Your task to perform on an android device: search for starred emails in the gmail app Image 0: 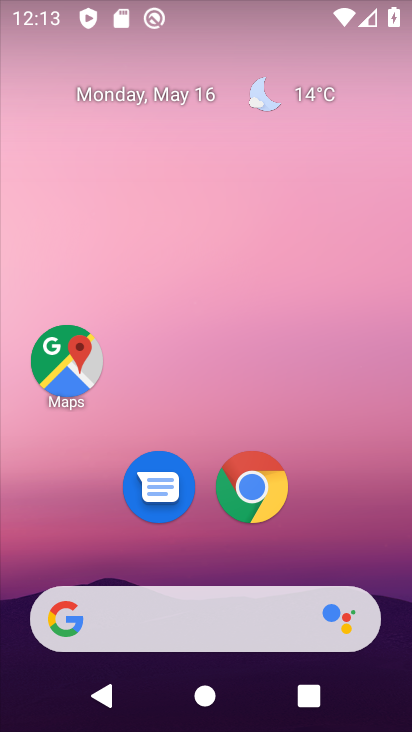
Step 0: press home button
Your task to perform on an android device: search for starred emails in the gmail app Image 1: 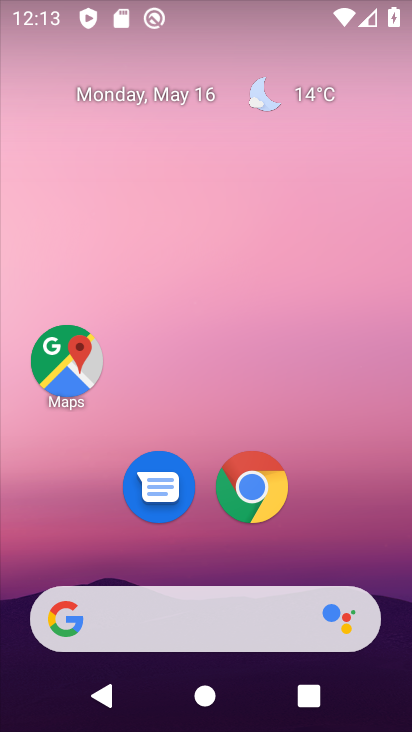
Step 1: drag from (151, 605) to (312, 126)
Your task to perform on an android device: search for starred emails in the gmail app Image 2: 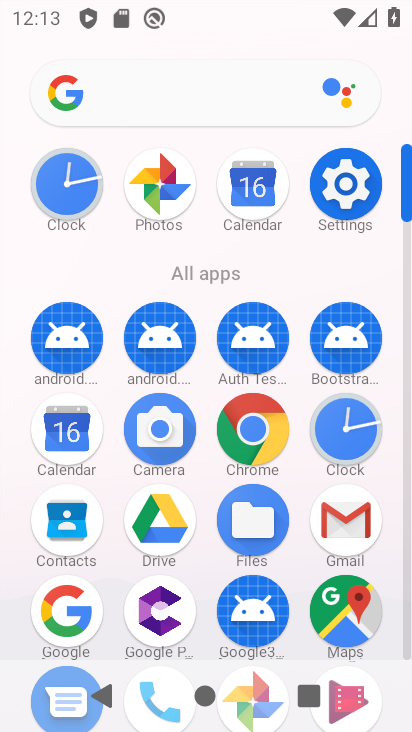
Step 2: click (362, 533)
Your task to perform on an android device: search for starred emails in the gmail app Image 3: 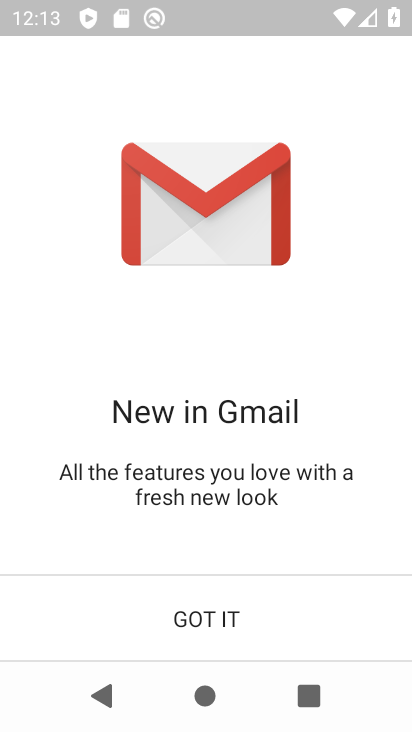
Step 3: click (221, 609)
Your task to perform on an android device: search for starred emails in the gmail app Image 4: 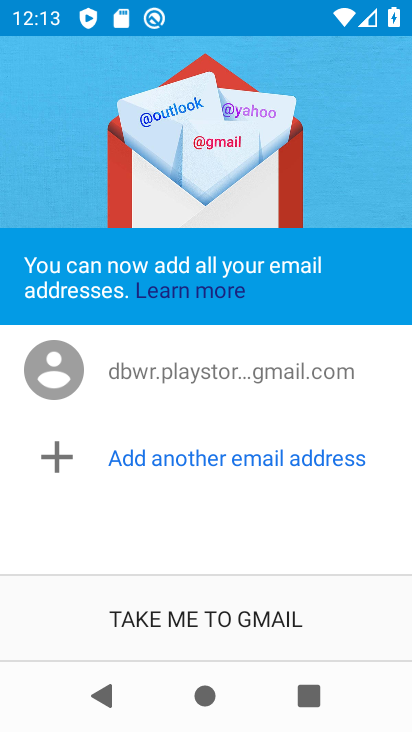
Step 4: click (221, 610)
Your task to perform on an android device: search for starred emails in the gmail app Image 5: 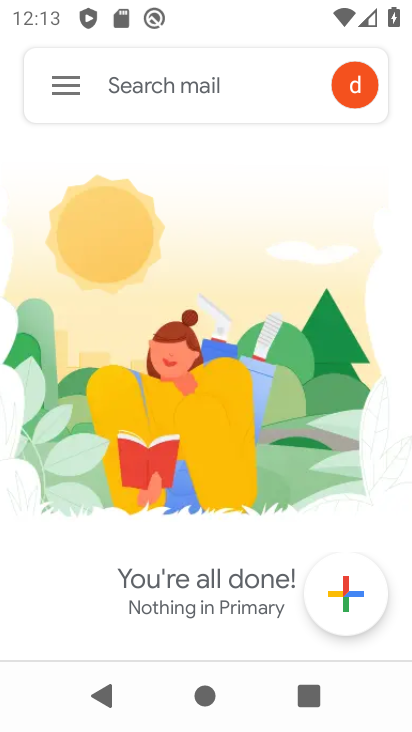
Step 5: click (72, 86)
Your task to perform on an android device: search for starred emails in the gmail app Image 6: 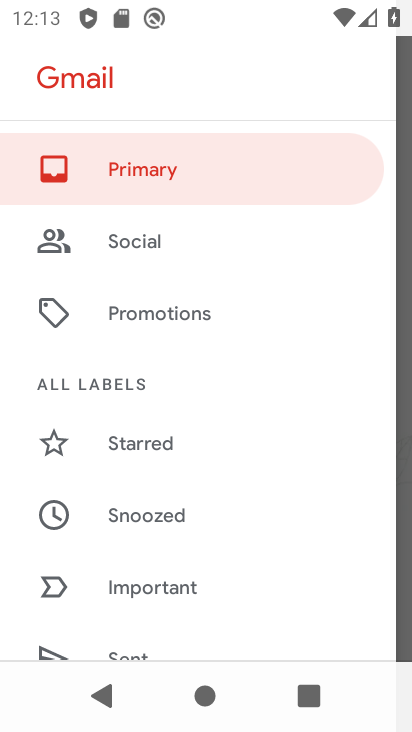
Step 6: click (150, 446)
Your task to perform on an android device: search for starred emails in the gmail app Image 7: 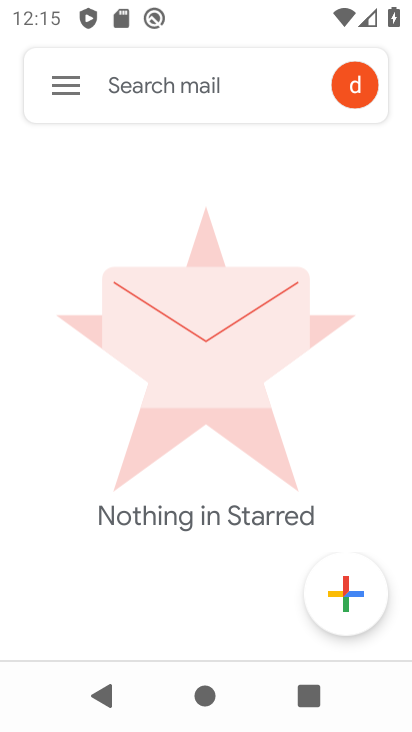
Step 7: task complete